Your task to perform on an android device: Search for the best rated coffee table on Target. Image 0: 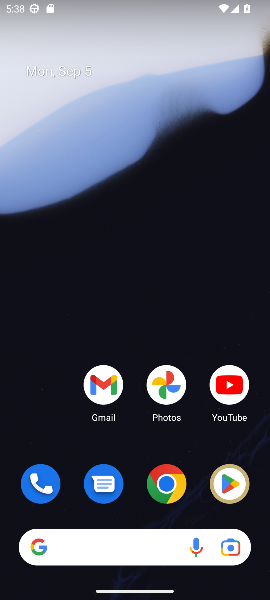
Step 0: click (166, 489)
Your task to perform on an android device: Search for the best rated coffee table on Target. Image 1: 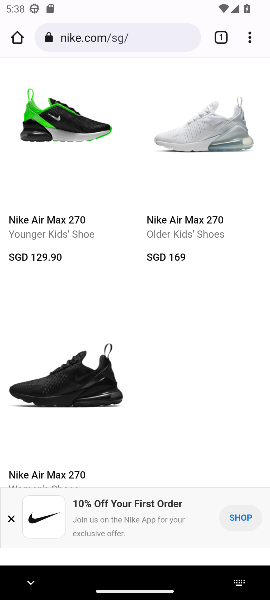
Step 1: click (151, 33)
Your task to perform on an android device: Search for the best rated coffee table on Target. Image 2: 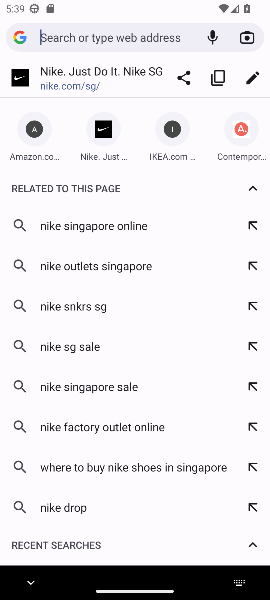
Step 2: type "Target"
Your task to perform on an android device: Search for the best rated coffee table on Target. Image 3: 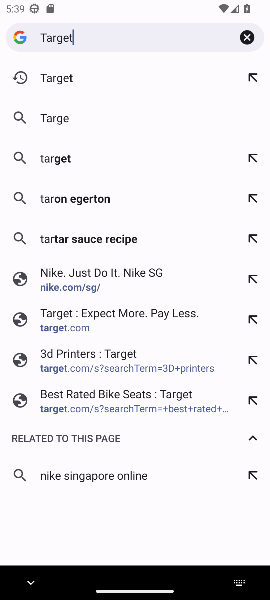
Step 3: press enter
Your task to perform on an android device: Search for the best rated coffee table on Target. Image 4: 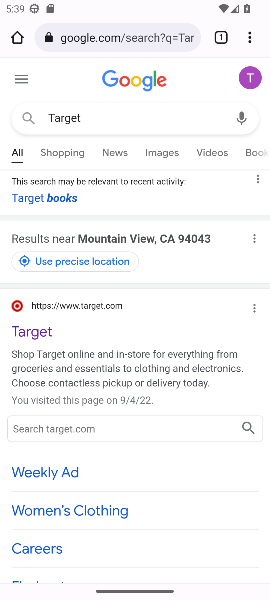
Step 4: click (30, 327)
Your task to perform on an android device: Search for the best rated coffee table on Target. Image 5: 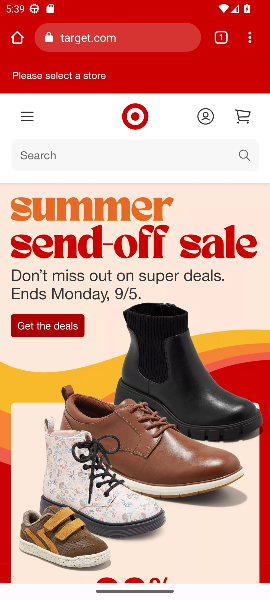
Step 5: click (195, 154)
Your task to perform on an android device: Search for the best rated coffee table on Target. Image 6: 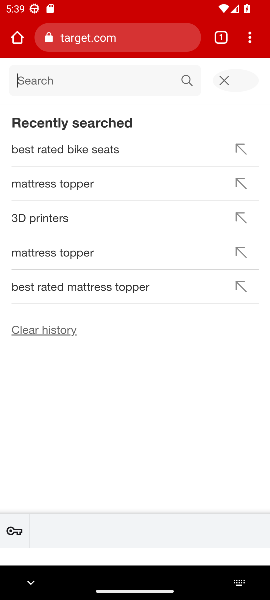
Step 6: type " coffee table"
Your task to perform on an android device: Search for the best rated coffee table on Target. Image 7: 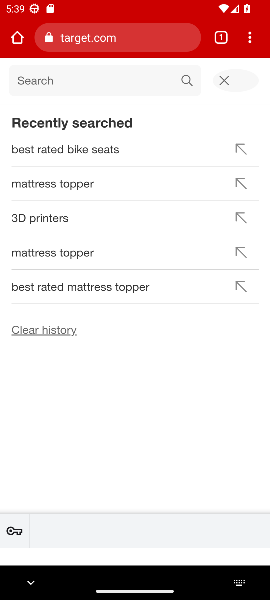
Step 7: press enter
Your task to perform on an android device: Search for the best rated coffee table on Target. Image 8: 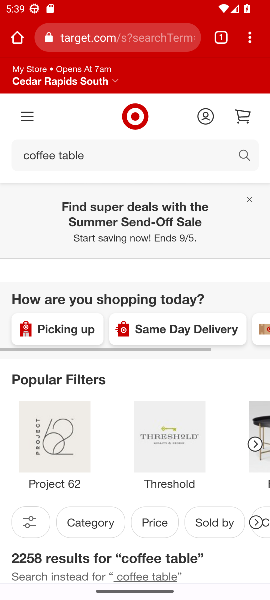
Step 8: task complete